Your task to perform on an android device: How much does a 3 bedroom apartment rent for in San Francisco? Image 0: 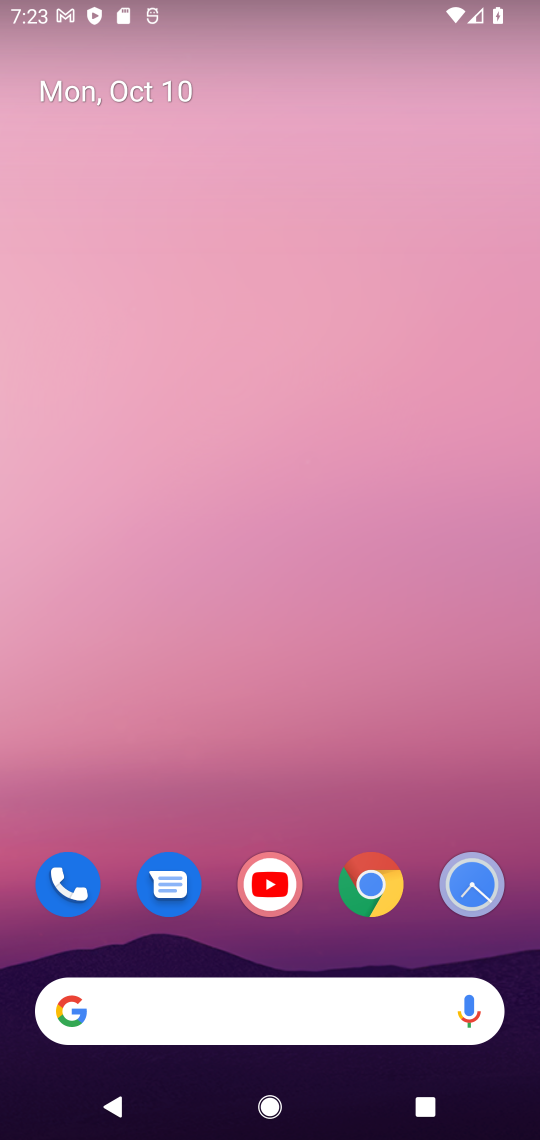
Step 0: click (363, 882)
Your task to perform on an android device: How much does a 3 bedroom apartment rent for in San Francisco? Image 1: 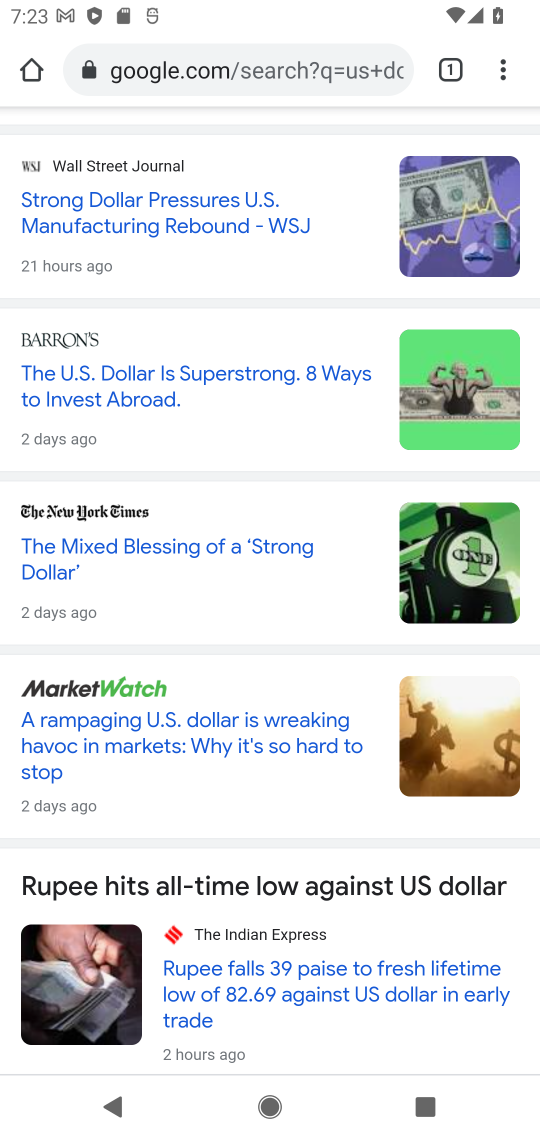
Step 1: click (311, 61)
Your task to perform on an android device: How much does a 3 bedroom apartment rent for in San Francisco? Image 2: 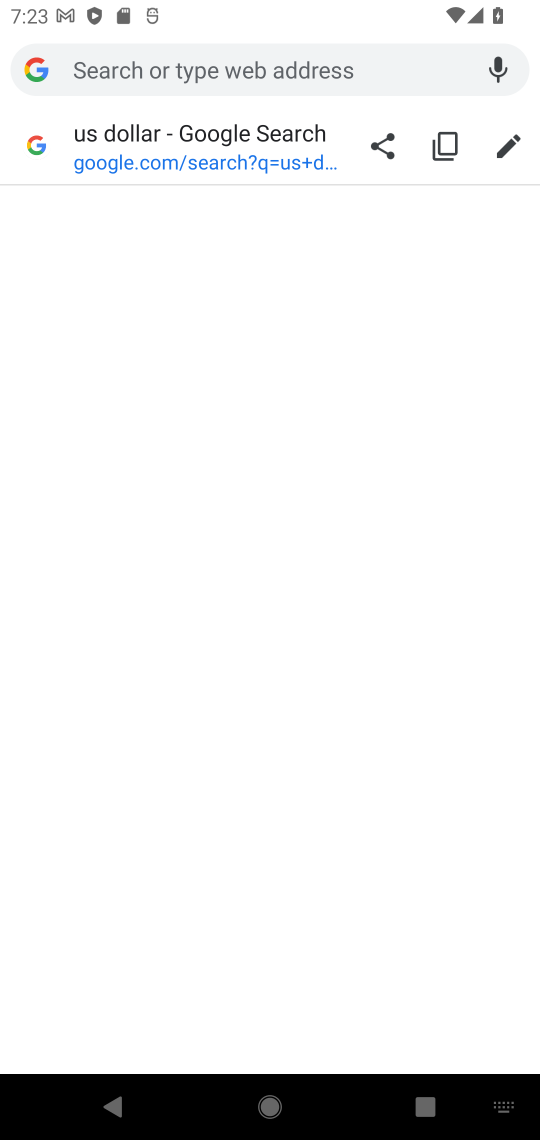
Step 2: type "3 bedroom apartment rent for in San Francisco?"
Your task to perform on an android device: How much does a 3 bedroom apartment rent for in San Francisco? Image 3: 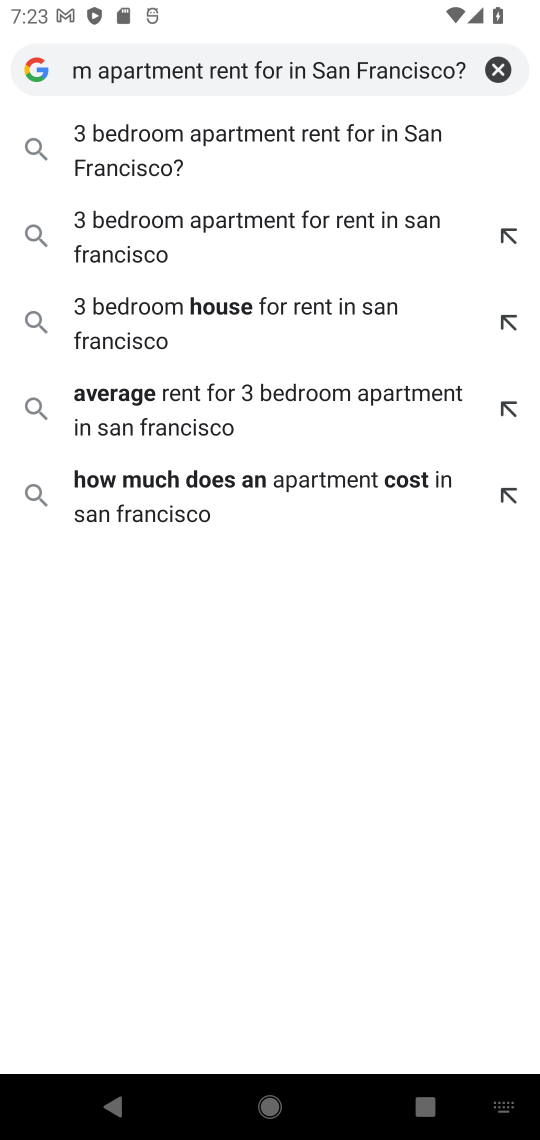
Step 3: click (408, 143)
Your task to perform on an android device: How much does a 3 bedroom apartment rent for in San Francisco? Image 4: 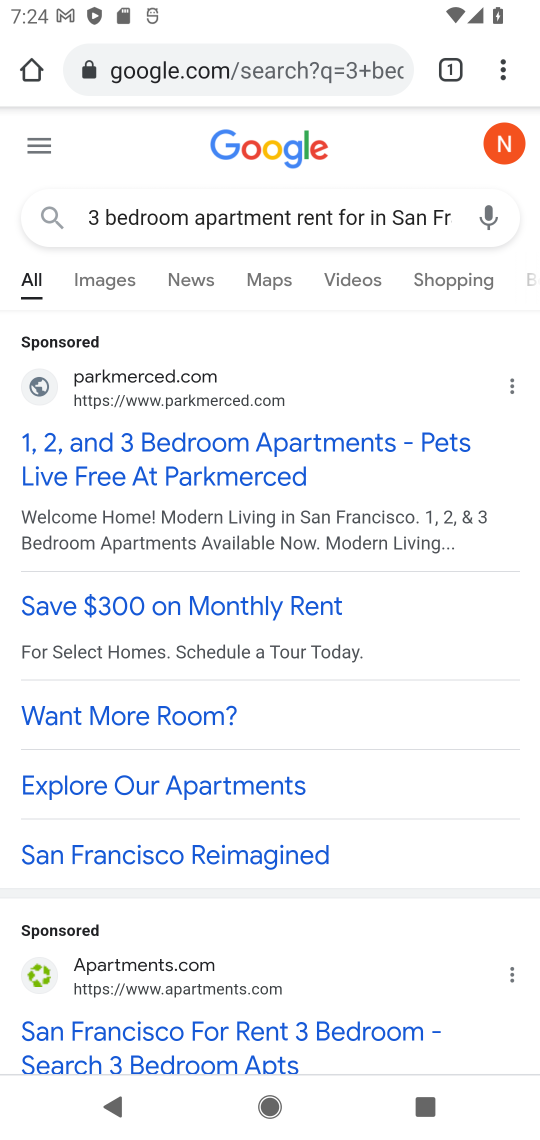
Step 4: drag from (479, 912) to (313, 496)
Your task to perform on an android device: How much does a 3 bedroom apartment rent for in San Francisco? Image 5: 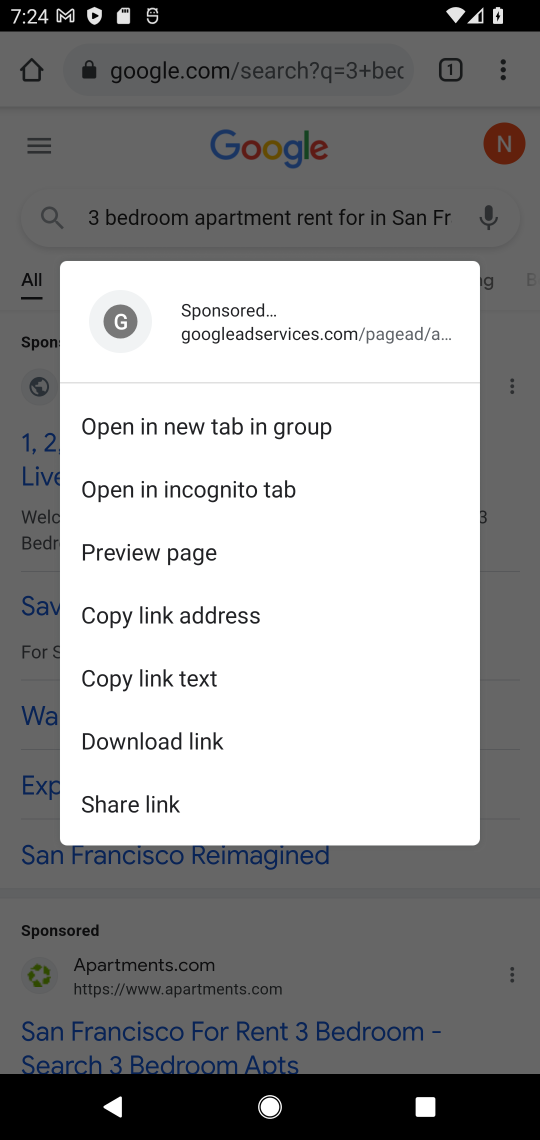
Step 5: click (486, 878)
Your task to perform on an android device: How much does a 3 bedroom apartment rent for in San Francisco? Image 6: 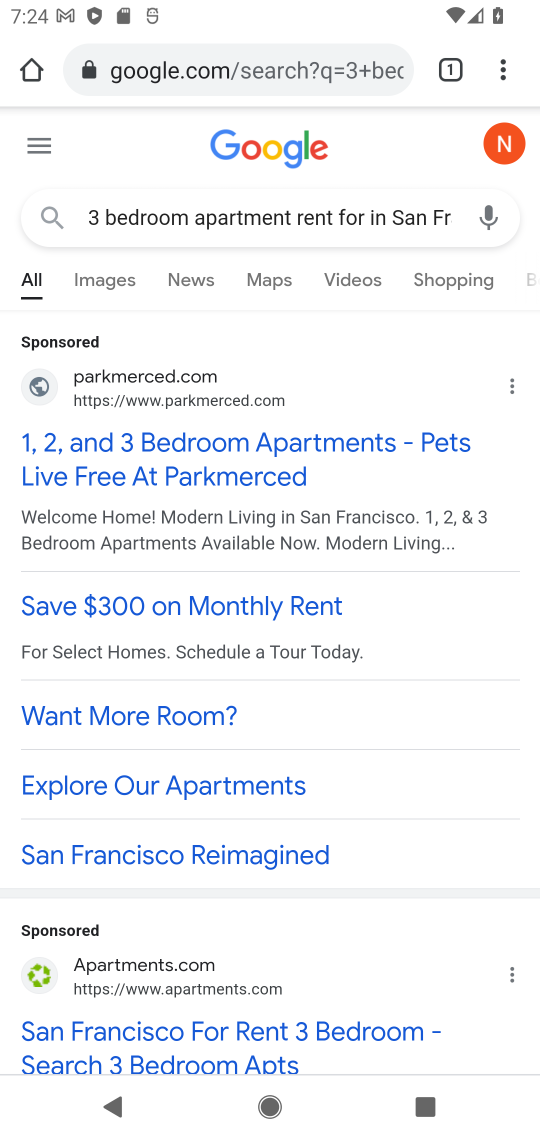
Step 6: drag from (448, 923) to (409, 588)
Your task to perform on an android device: How much does a 3 bedroom apartment rent for in San Francisco? Image 7: 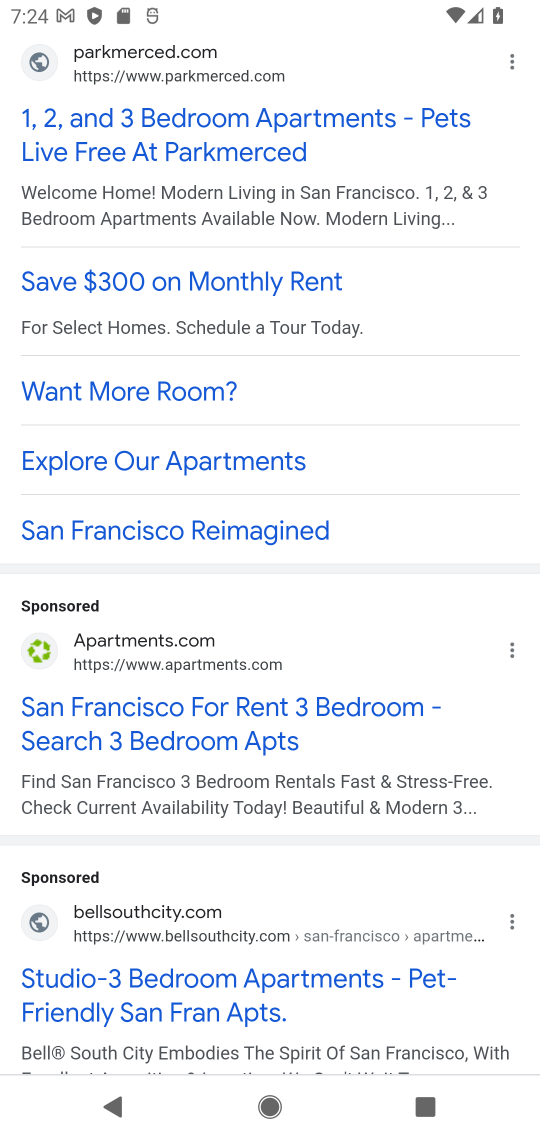
Step 7: click (216, 739)
Your task to perform on an android device: How much does a 3 bedroom apartment rent for in San Francisco? Image 8: 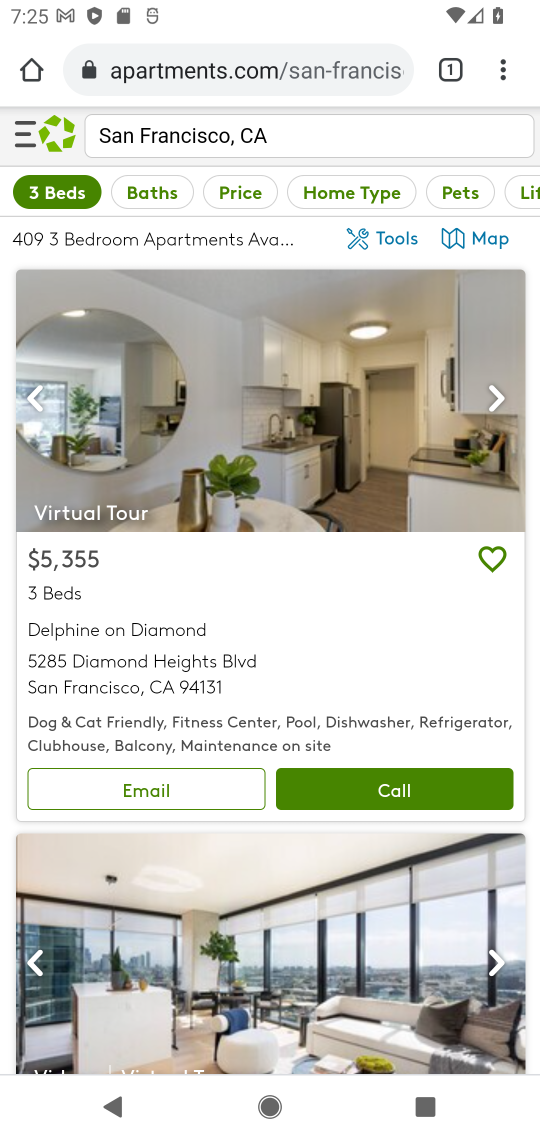
Step 8: task complete